Your task to perform on an android device: allow notifications from all sites in the chrome app Image 0: 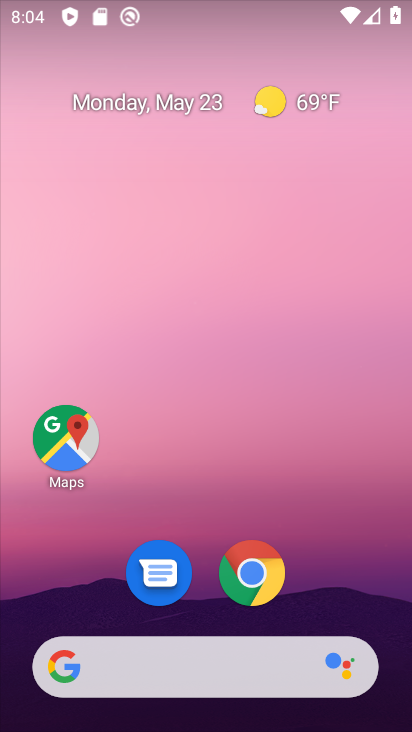
Step 0: click (259, 538)
Your task to perform on an android device: allow notifications from all sites in the chrome app Image 1: 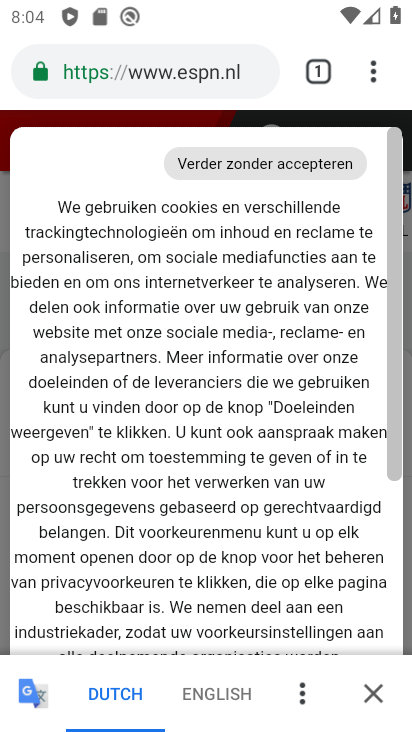
Step 1: click (362, 77)
Your task to perform on an android device: allow notifications from all sites in the chrome app Image 2: 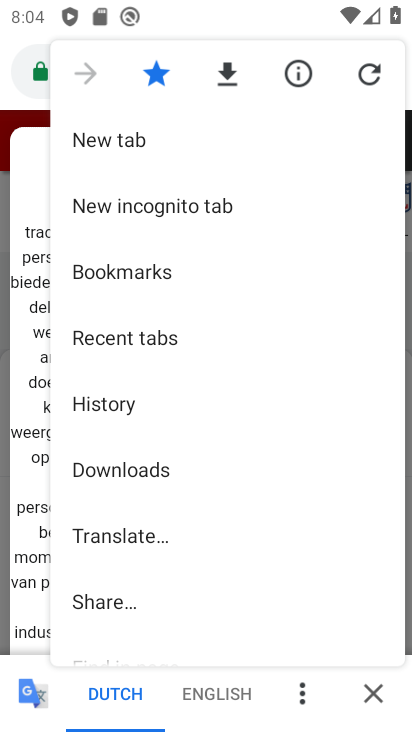
Step 2: drag from (129, 573) to (206, 277)
Your task to perform on an android device: allow notifications from all sites in the chrome app Image 3: 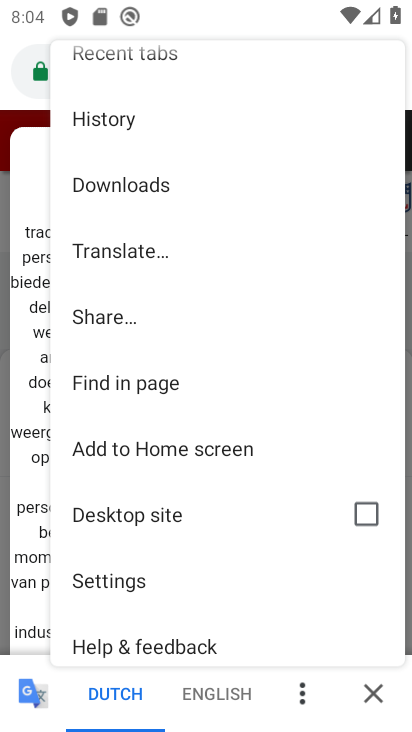
Step 3: click (106, 599)
Your task to perform on an android device: allow notifications from all sites in the chrome app Image 4: 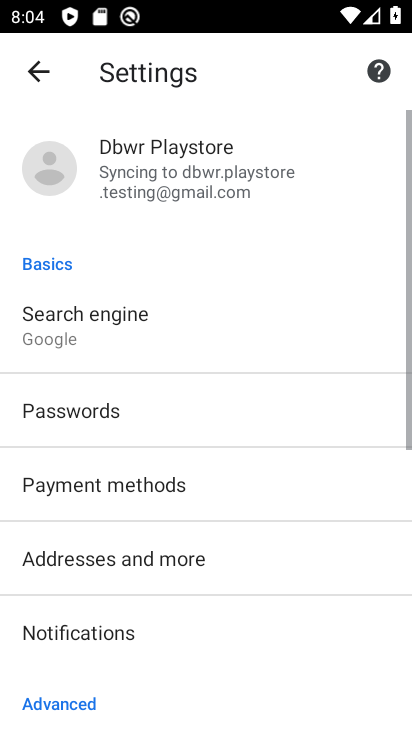
Step 4: drag from (170, 643) to (218, 199)
Your task to perform on an android device: allow notifications from all sites in the chrome app Image 5: 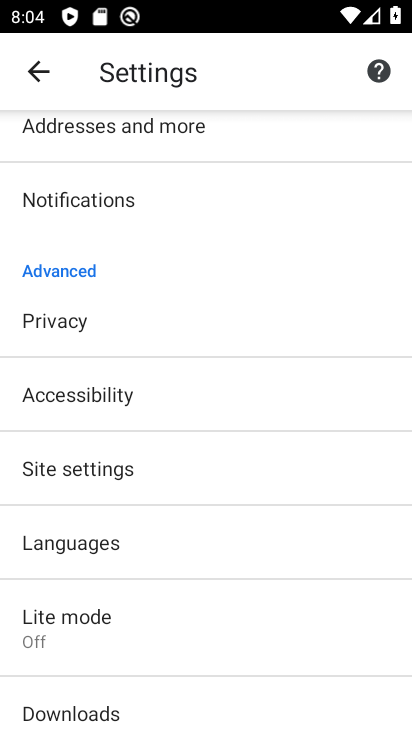
Step 5: click (62, 448)
Your task to perform on an android device: allow notifications from all sites in the chrome app Image 6: 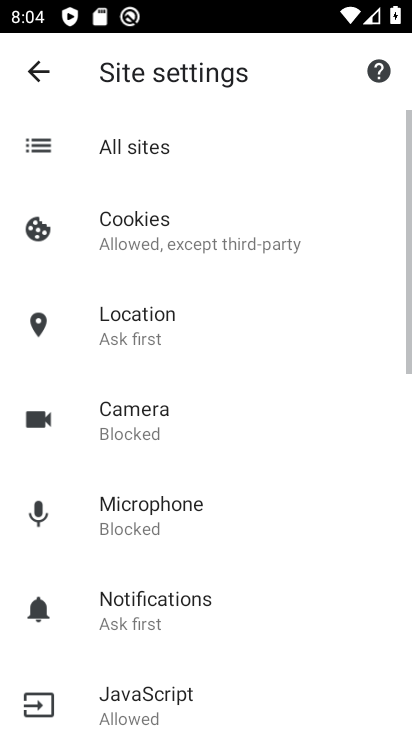
Step 6: click (136, 596)
Your task to perform on an android device: allow notifications from all sites in the chrome app Image 7: 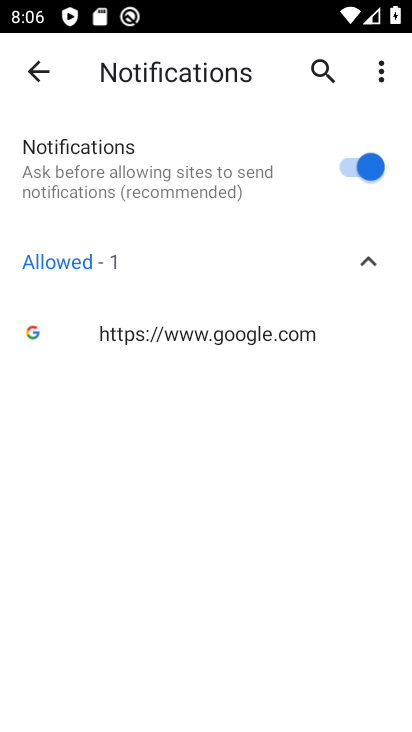
Step 7: task complete